Your task to perform on an android device: Turn on the flashlight Image 0: 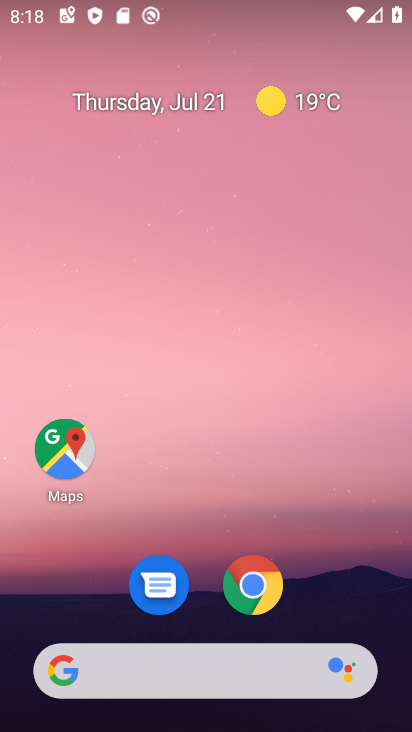
Step 0: drag from (336, 580) to (286, 63)
Your task to perform on an android device: Turn on the flashlight Image 1: 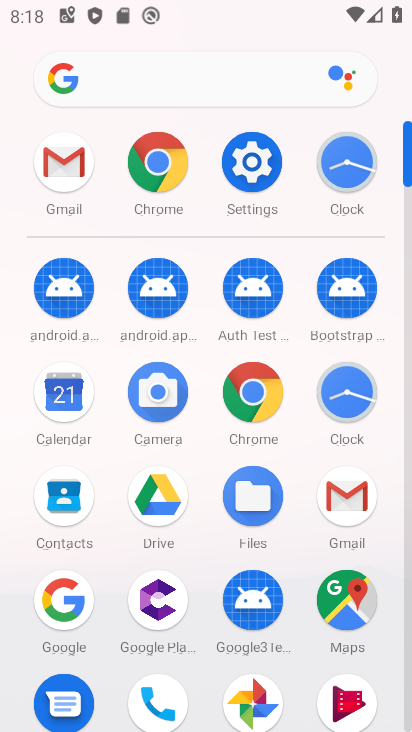
Step 1: click (264, 161)
Your task to perform on an android device: Turn on the flashlight Image 2: 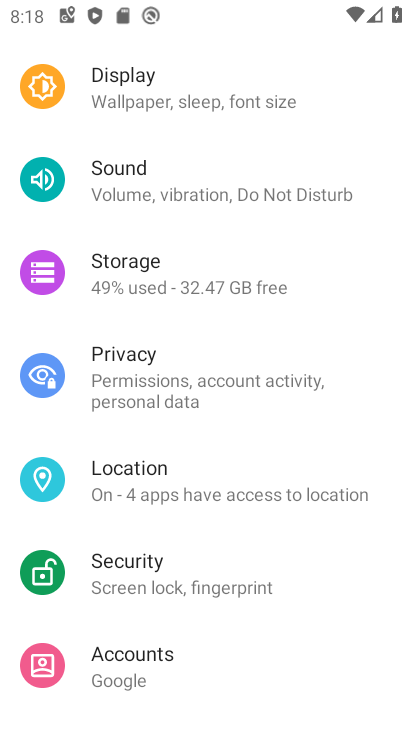
Step 2: drag from (241, 253) to (256, 599)
Your task to perform on an android device: Turn on the flashlight Image 3: 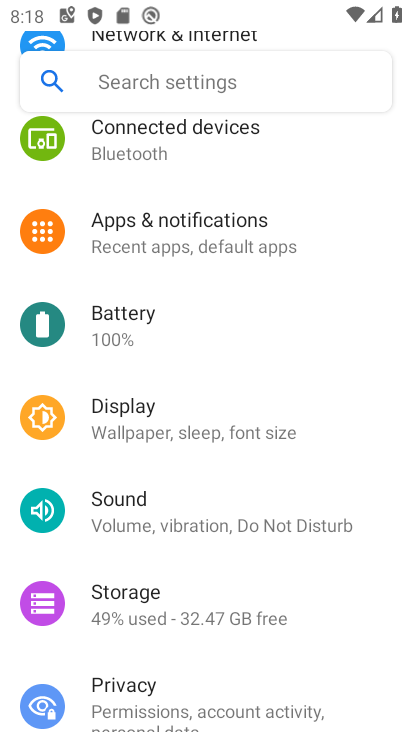
Step 3: drag from (245, 168) to (258, 584)
Your task to perform on an android device: Turn on the flashlight Image 4: 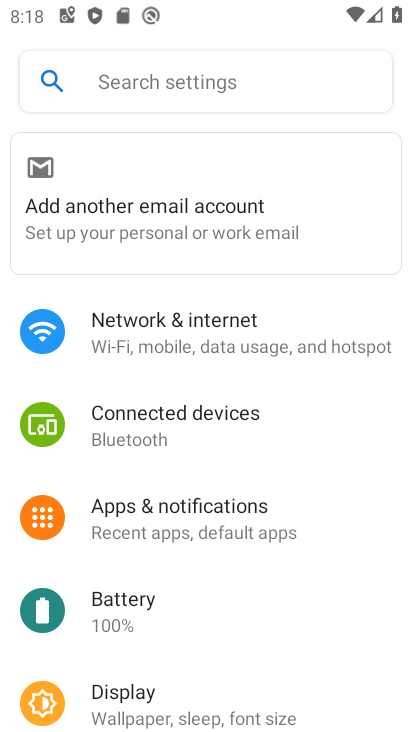
Step 4: click (225, 82)
Your task to perform on an android device: Turn on the flashlight Image 5: 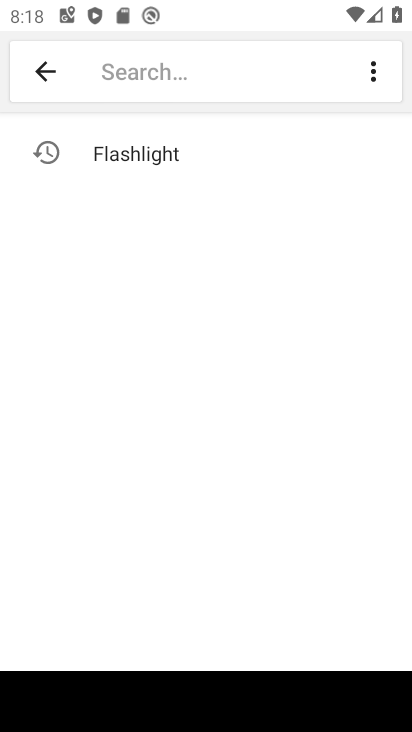
Step 5: click (158, 146)
Your task to perform on an android device: Turn on the flashlight Image 6: 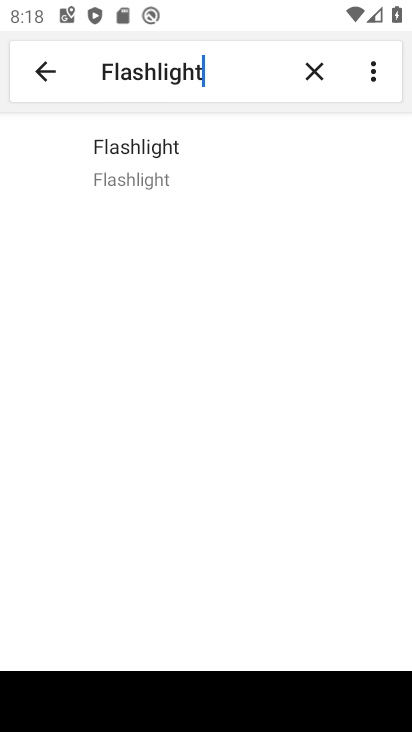
Step 6: click (161, 164)
Your task to perform on an android device: Turn on the flashlight Image 7: 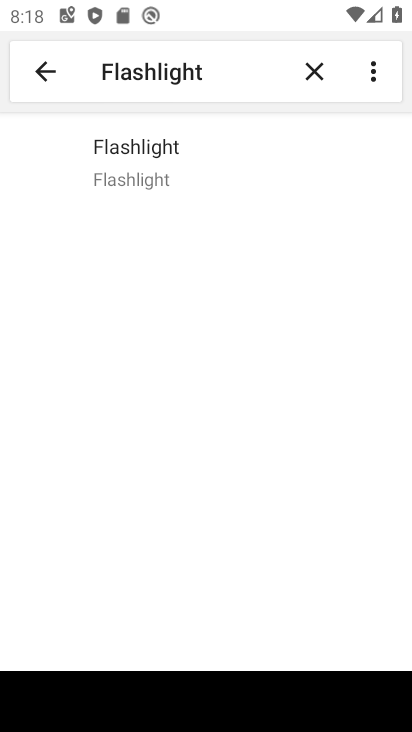
Step 7: task complete